Your task to perform on an android device: check google app version Image 0: 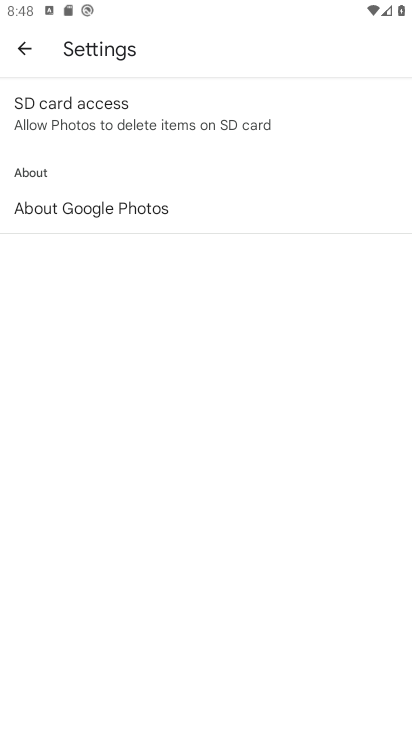
Step 0: press home button
Your task to perform on an android device: check google app version Image 1: 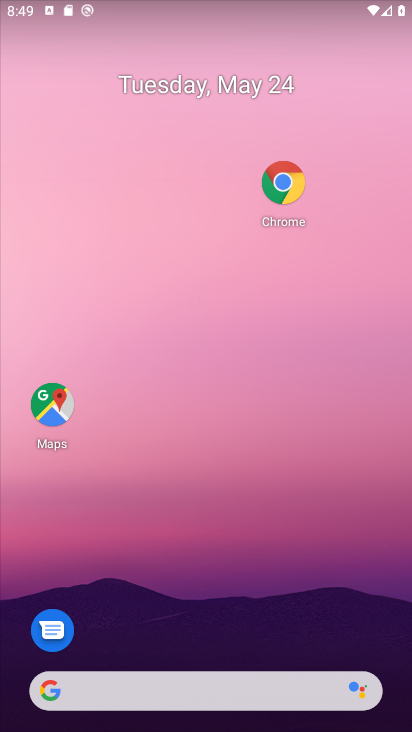
Step 1: drag from (243, 288) to (280, 2)
Your task to perform on an android device: check google app version Image 2: 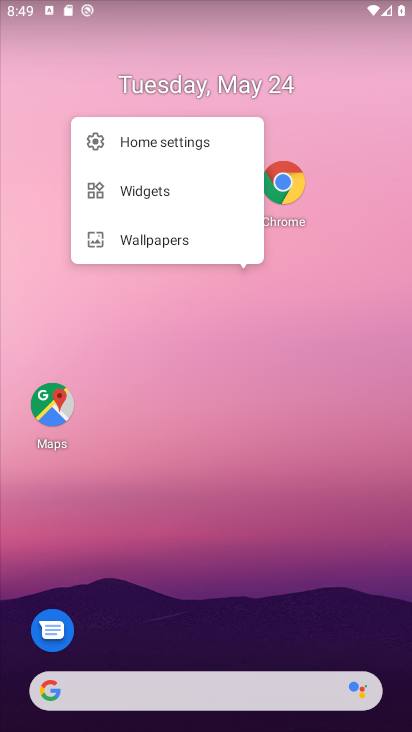
Step 2: click (266, 324)
Your task to perform on an android device: check google app version Image 3: 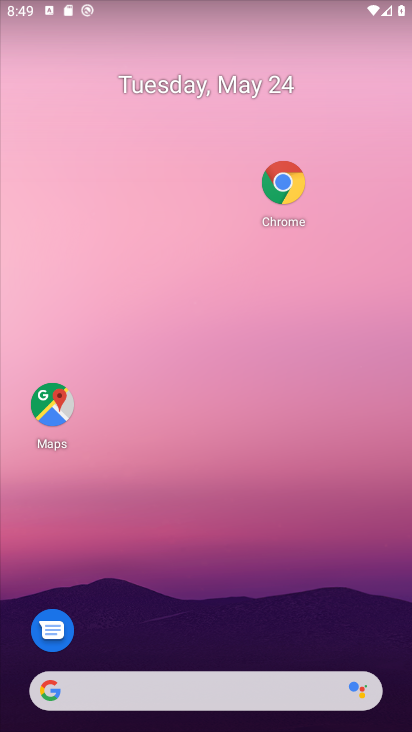
Step 3: drag from (184, 674) to (228, 30)
Your task to perform on an android device: check google app version Image 4: 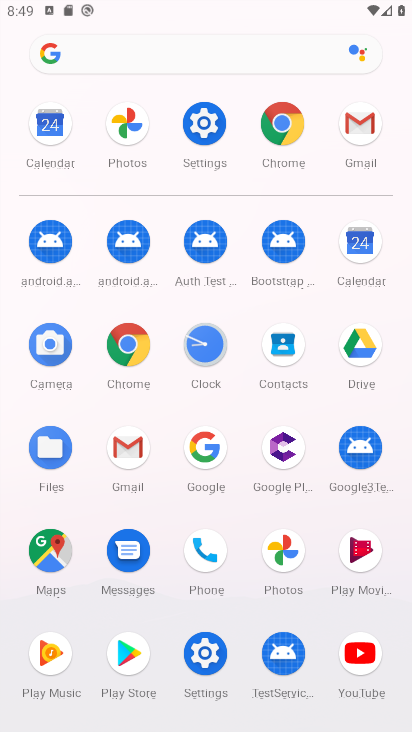
Step 4: click (276, 134)
Your task to perform on an android device: check google app version Image 5: 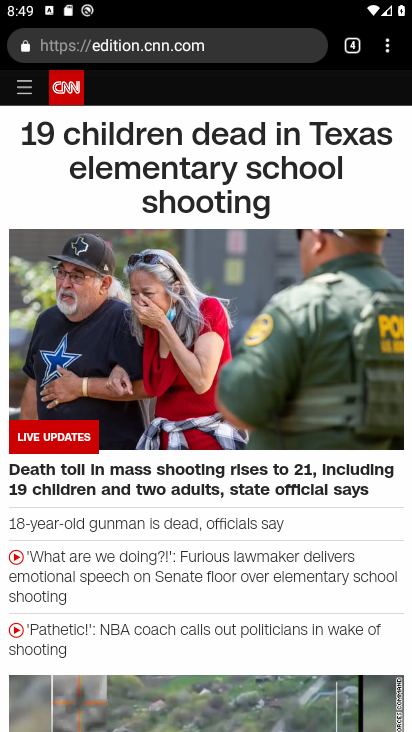
Step 5: click (383, 48)
Your task to perform on an android device: check google app version Image 6: 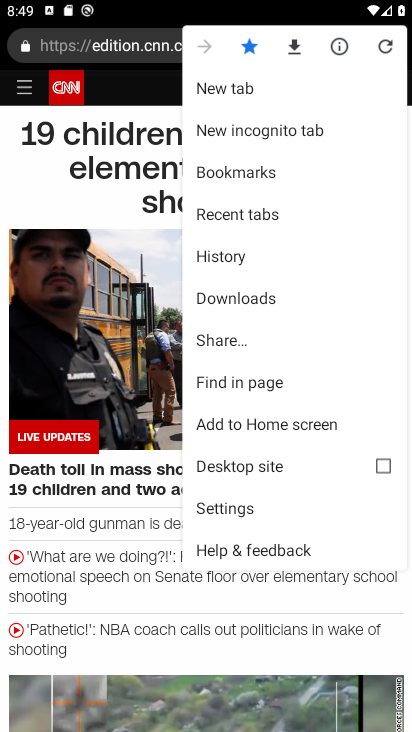
Step 6: click (231, 505)
Your task to perform on an android device: check google app version Image 7: 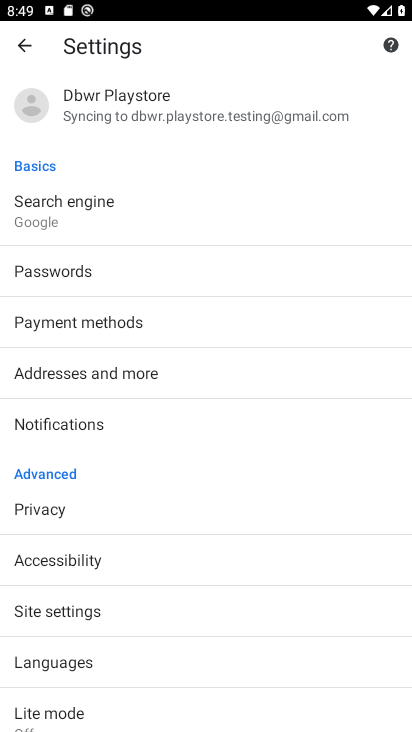
Step 7: drag from (126, 608) to (169, 285)
Your task to perform on an android device: check google app version Image 8: 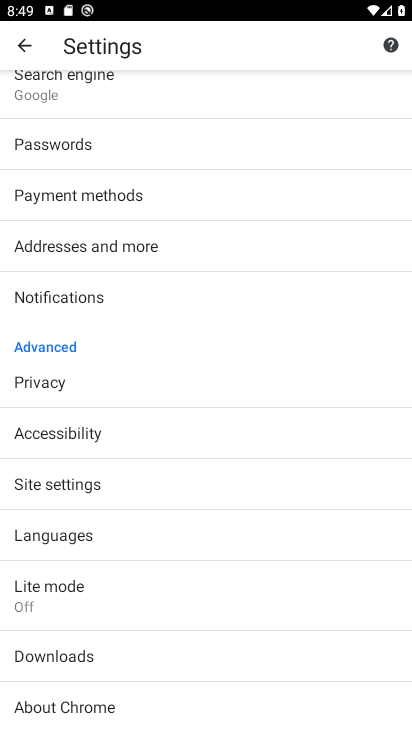
Step 8: click (76, 702)
Your task to perform on an android device: check google app version Image 9: 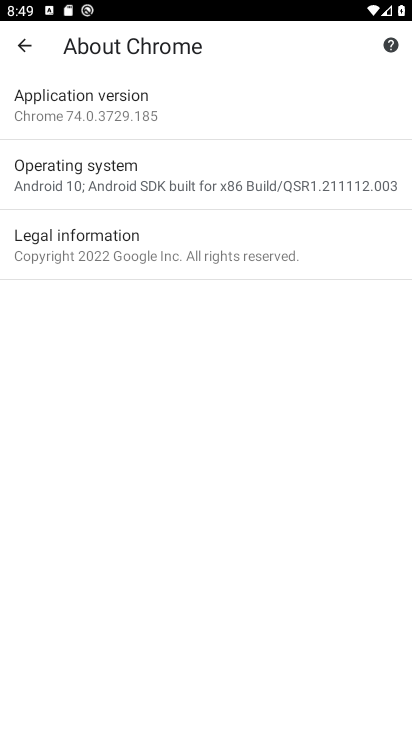
Step 9: click (90, 106)
Your task to perform on an android device: check google app version Image 10: 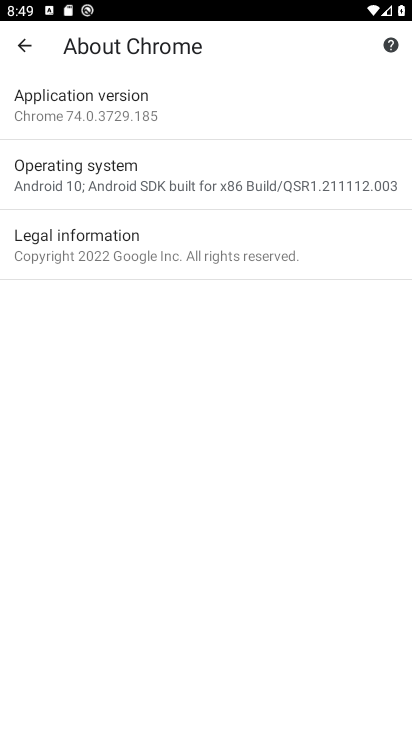
Step 10: task complete